Your task to perform on an android device: Open location settings Image 0: 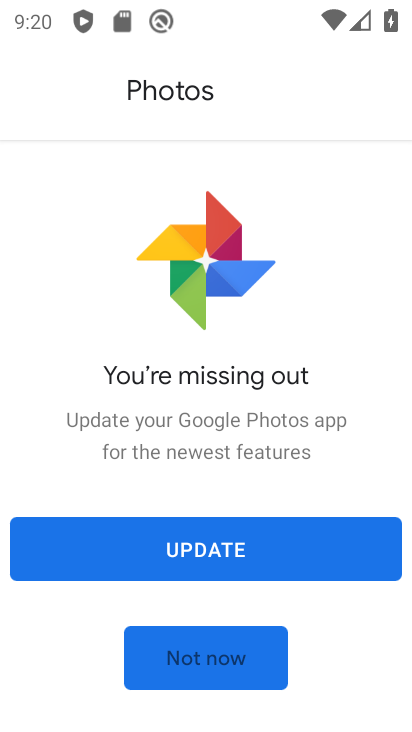
Step 0: press home button
Your task to perform on an android device: Open location settings Image 1: 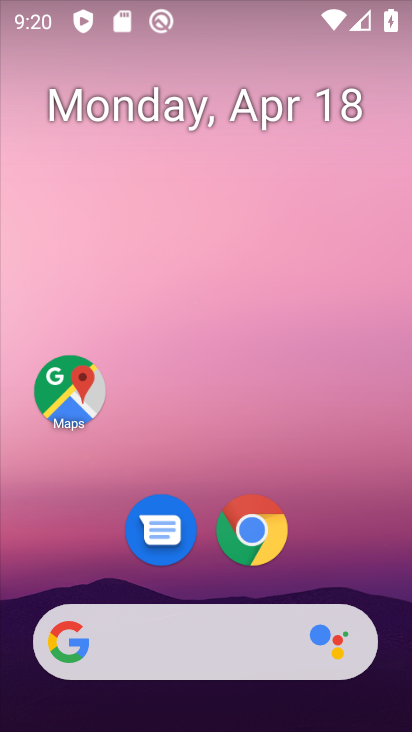
Step 1: drag from (331, 585) to (339, 55)
Your task to perform on an android device: Open location settings Image 2: 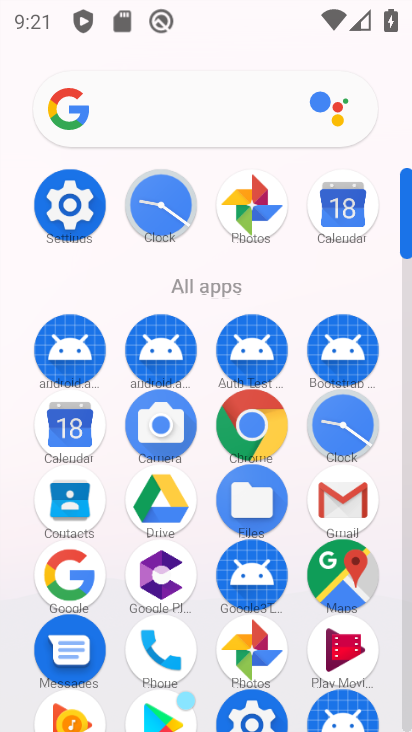
Step 2: click (69, 209)
Your task to perform on an android device: Open location settings Image 3: 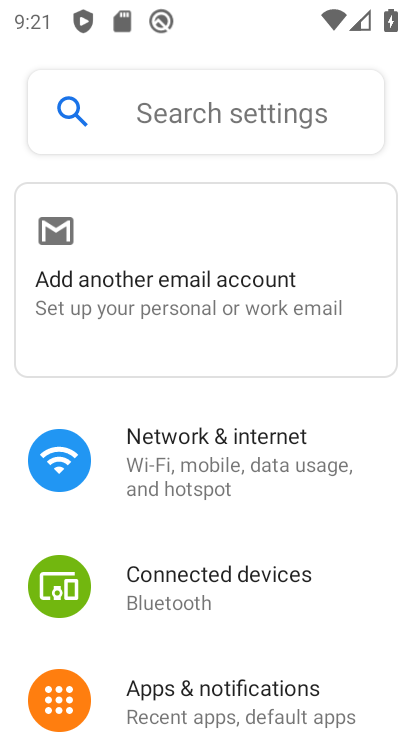
Step 3: drag from (386, 628) to (383, 174)
Your task to perform on an android device: Open location settings Image 4: 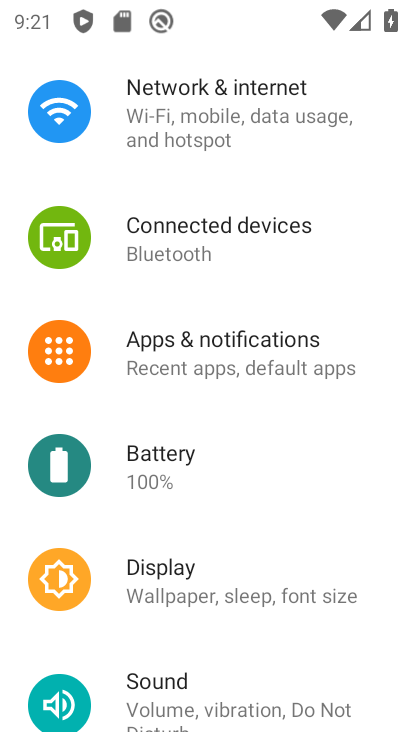
Step 4: drag from (397, 518) to (357, 166)
Your task to perform on an android device: Open location settings Image 5: 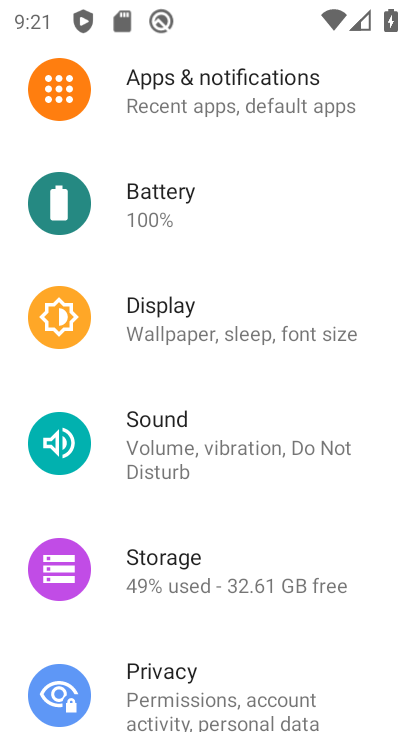
Step 5: drag from (377, 493) to (385, 205)
Your task to perform on an android device: Open location settings Image 6: 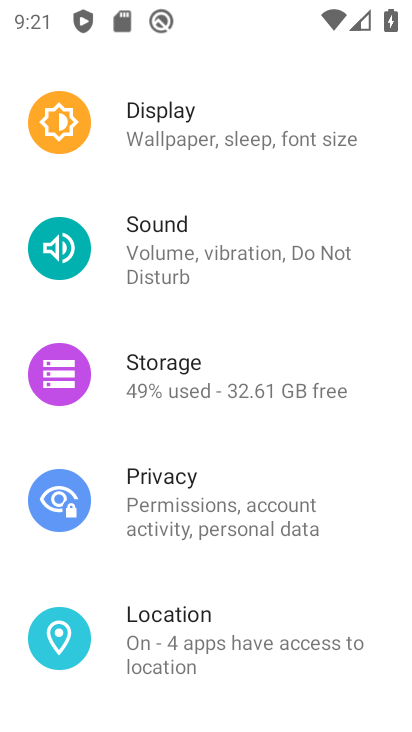
Step 6: click (126, 639)
Your task to perform on an android device: Open location settings Image 7: 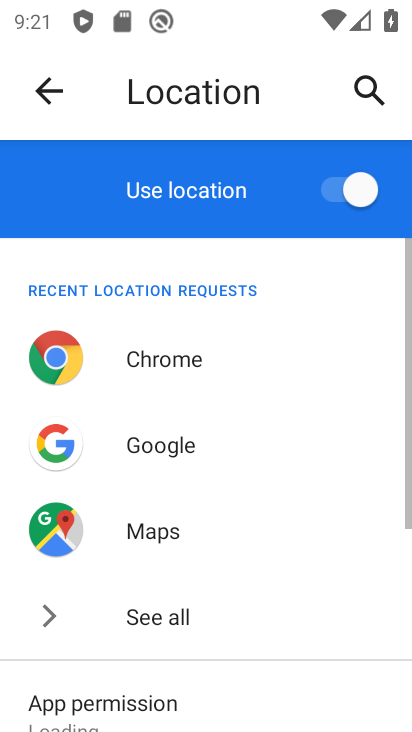
Step 7: task complete